Your task to perform on an android device: see tabs open on other devices in the chrome app Image 0: 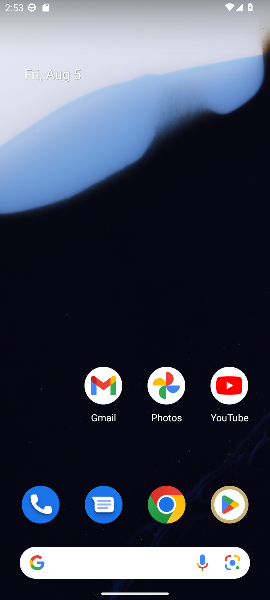
Step 0: click (165, 506)
Your task to perform on an android device: see tabs open on other devices in the chrome app Image 1: 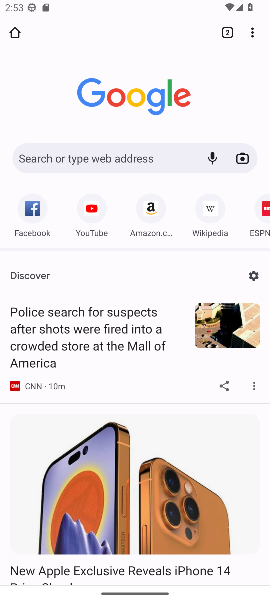
Step 1: click (255, 26)
Your task to perform on an android device: see tabs open on other devices in the chrome app Image 2: 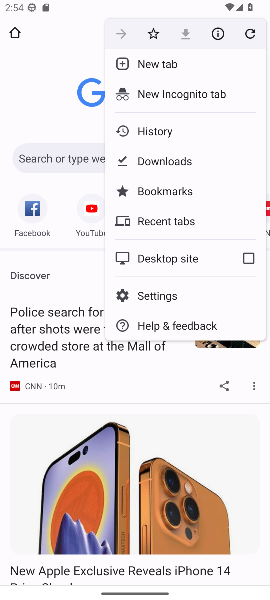
Step 2: click (50, 73)
Your task to perform on an android device: see tabs open on other devices in the chrome app Image 3: 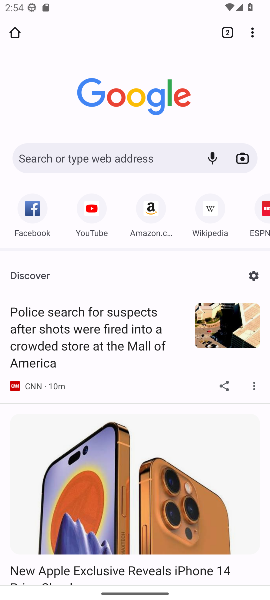
Step 3: task complete